Your task to perform on an android device: check the backup settings in the google photos Image 0: 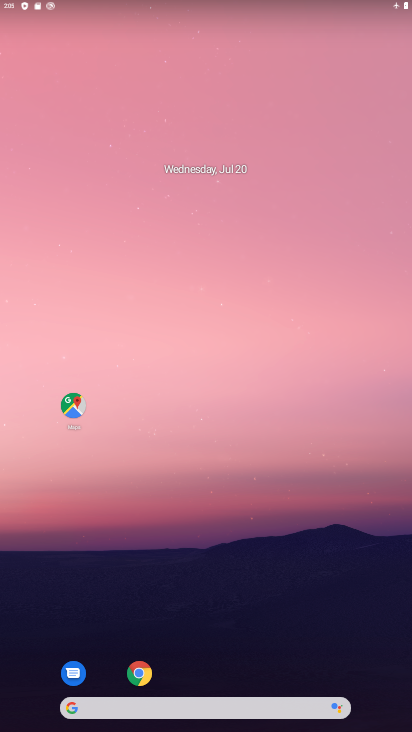
Step 0: drag from (347, 578) to (310, 123)
Your task to perform on an android device: check the backup settings in the google photos Image 1: 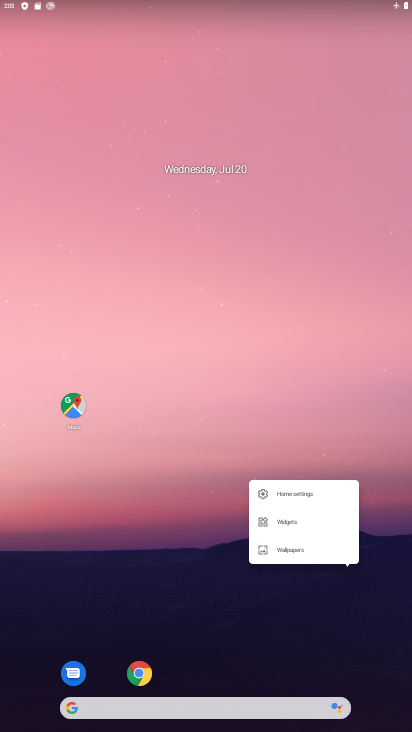
Step 1: click (263, 351)
Your task to perform on an android device: check the backup settings in the google photos Image 2: 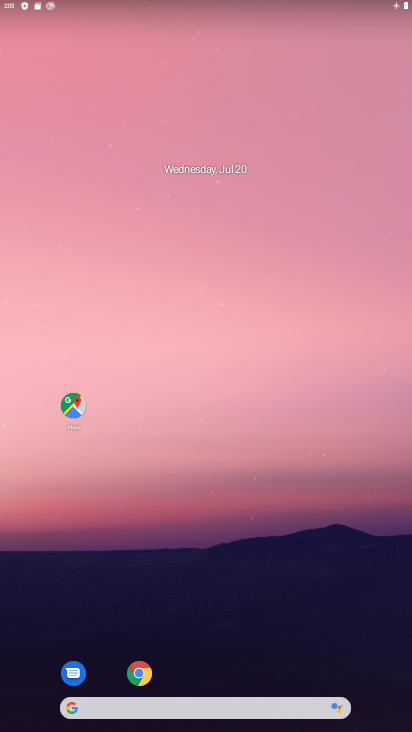
Step 2: drag from (279, 289) to (296, 2)
Your task to perform on an android device: check the backup settings in the google photos Image 3: 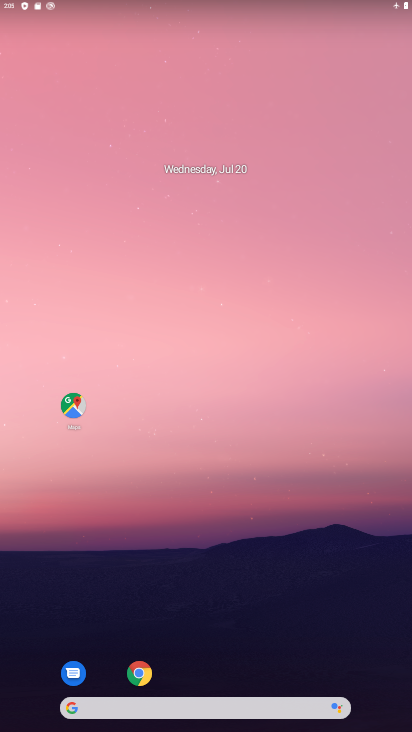
Step 3: drag from (321, 576) to (288, 0)
Your task to perform on an android device: check the backup settings in the google photos Image 4: 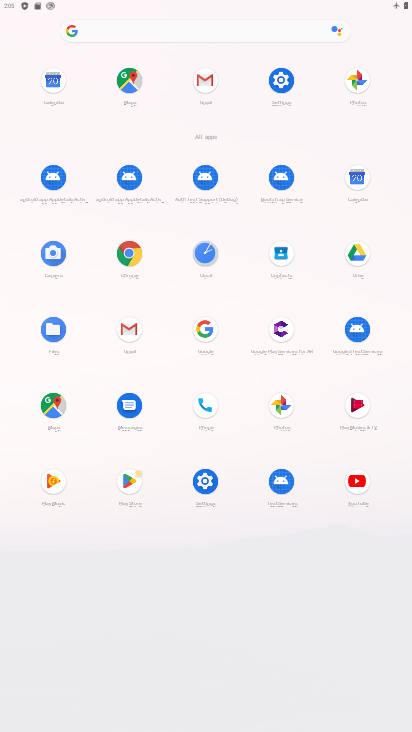
Step 4: click (283, 405)
Your task to perform on an android device: check the backup settings in the google photos Image 5: 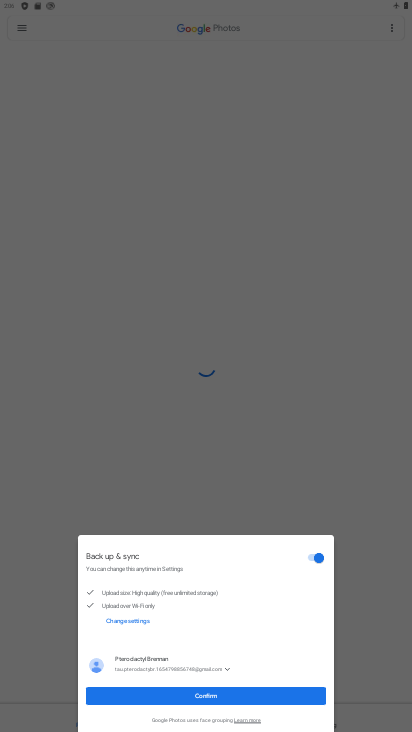
Step 5: click (237, 697)
Your task to perform on an android device: check the backup settings in the google photos Image 6: 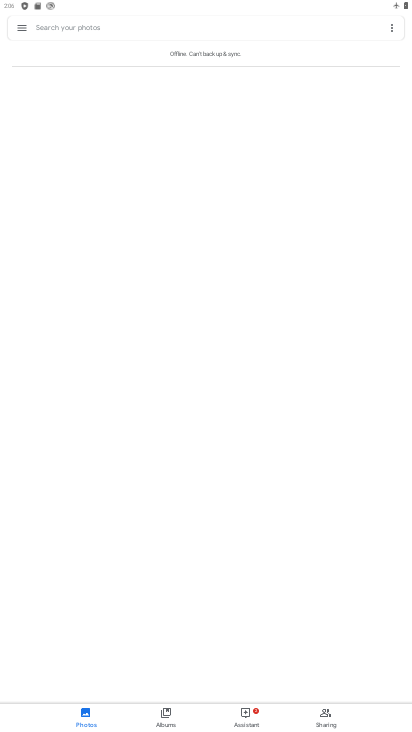
Step 6: click (19, 21)
Your task to perform on an android device: check the backup settings in the google photos Image 7: 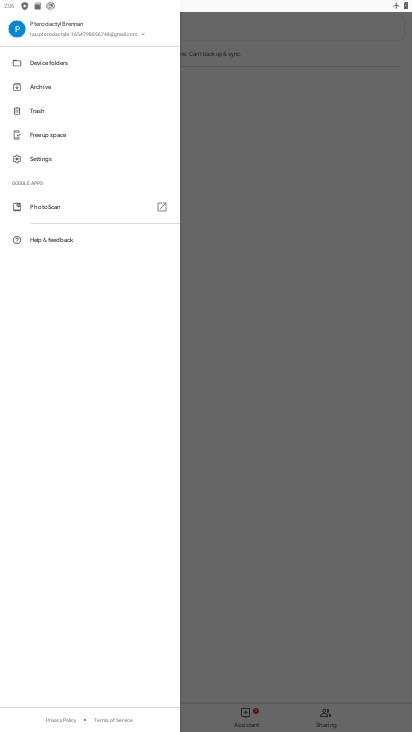
Step 7: click (73, 27)
Your task to perform on an android device: check the backup settings in the google photos Image 8: 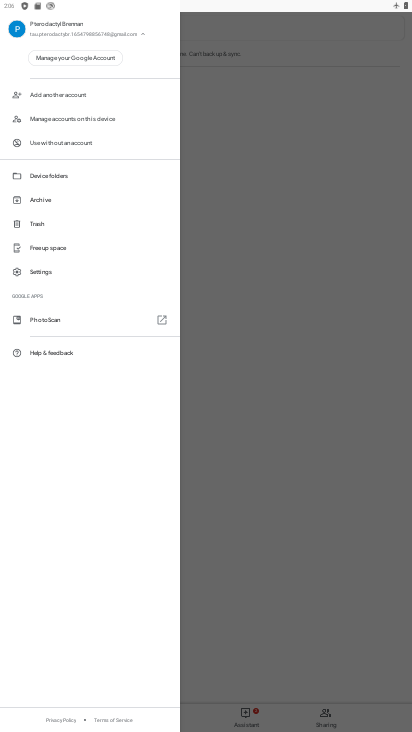
Step 8: click (53, 27)
Your task to perform on an android device: check the backup settings in the google photos Image 9: 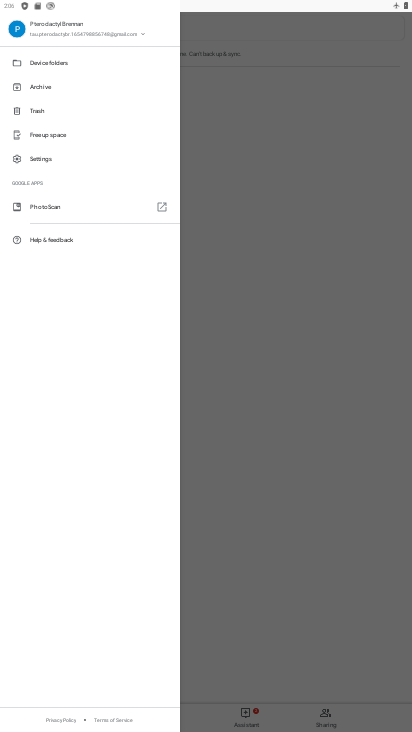
Step 9: click (45, 162)
Your task to perform on an android device: check the backup settings in the google photos Image 10: 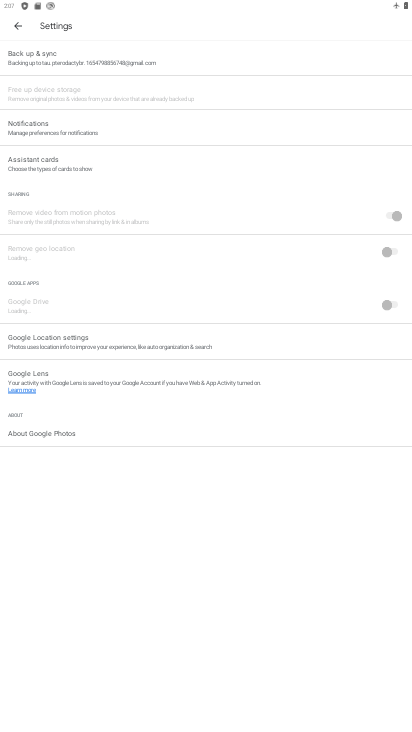
Step 10: click (74, 58)
Your task to perform on an android device: check the backup settings in the google photos Image 11: 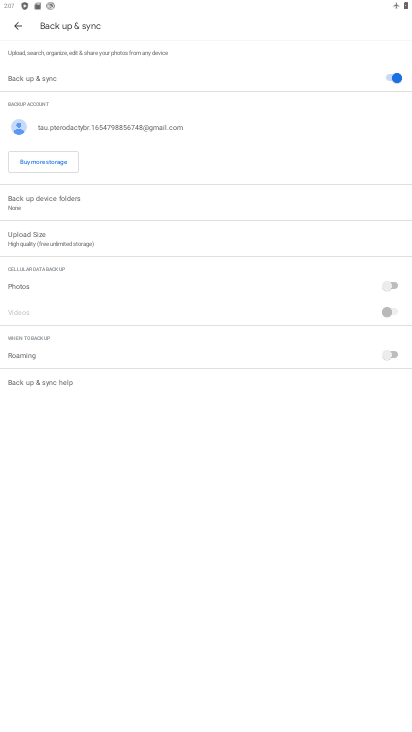
Step 11: task complete